Your task to perform on an android device: Go to settings Image 0: 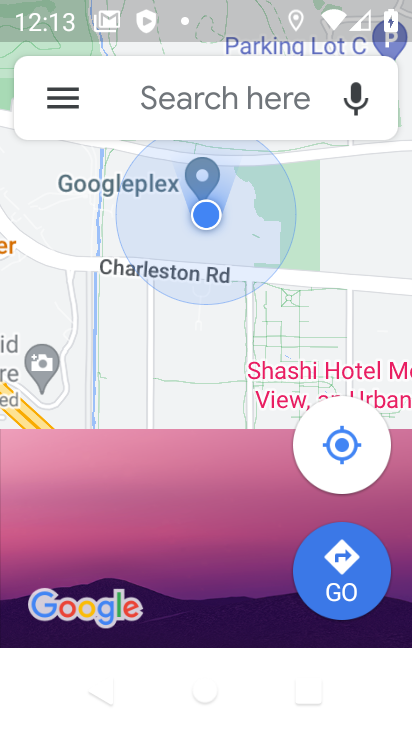
Step 0: click (244, 126)
Your task to perform on an android device: Go to settings Image 1: 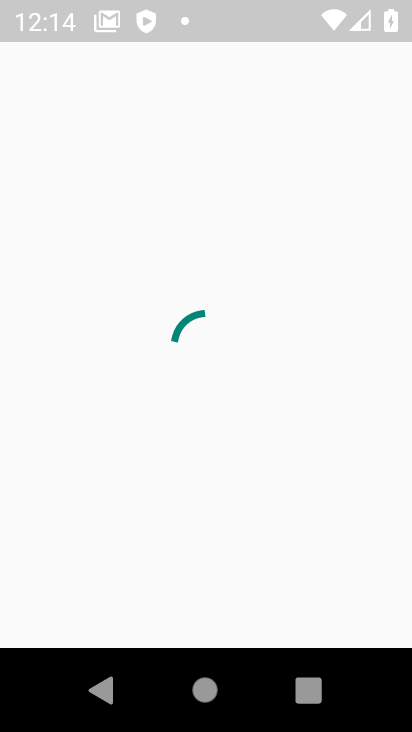
Step 1: press home button
Your task to perform on an android device: Go to settings Image 2: 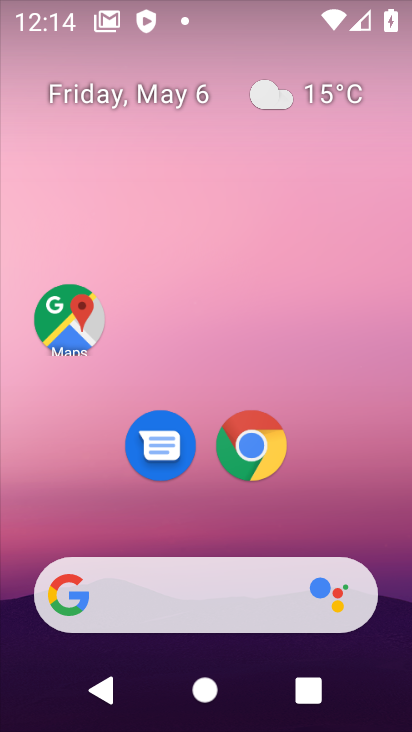
Step 2: drag from (351, 529) to (231, 123)
Your task to perform on an android device: Go to settings Image 3: 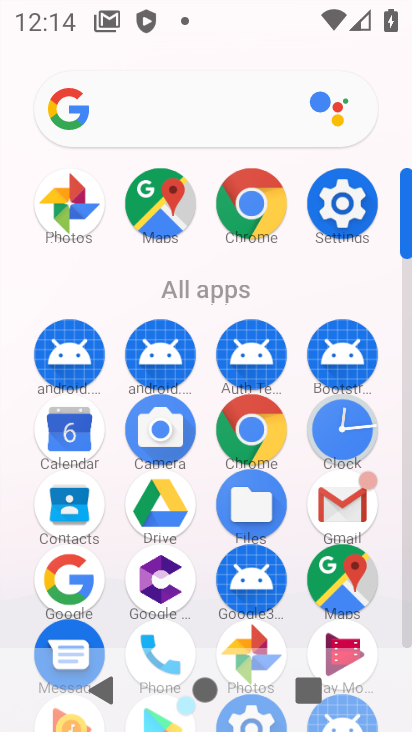
Step 3: click (338, 197)
Your task to perform on an android device: Go to settings Image 4: 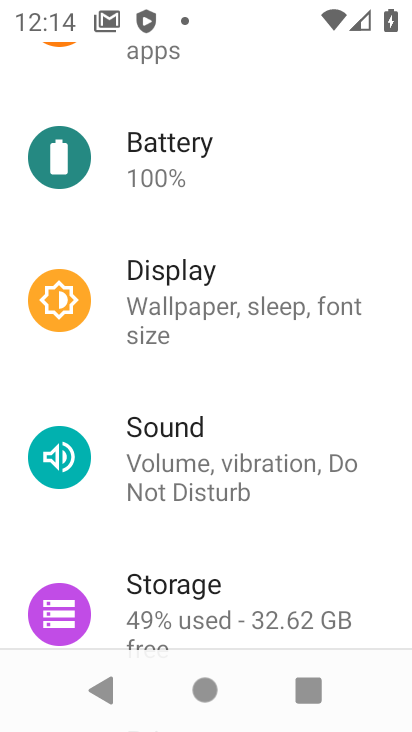
Step 4: task complete